Your task to perform on an android device: toggle priority inbox in the gmail app Image 0: 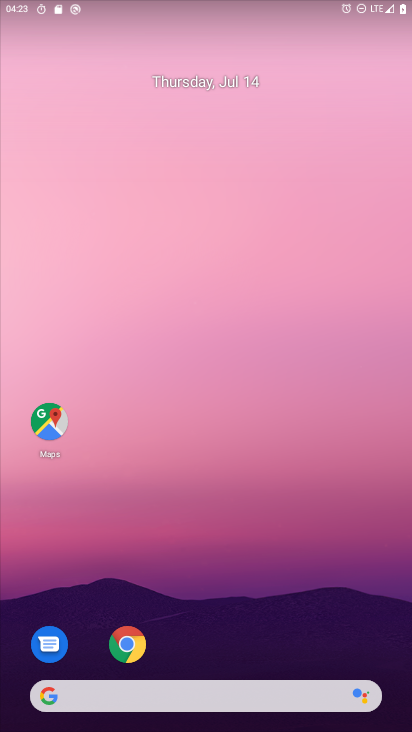
Step 0: drag from (271, 476) to (151, 0)
Your task to perform on an android device: toggle priority inbox in the gmail app Image 1: 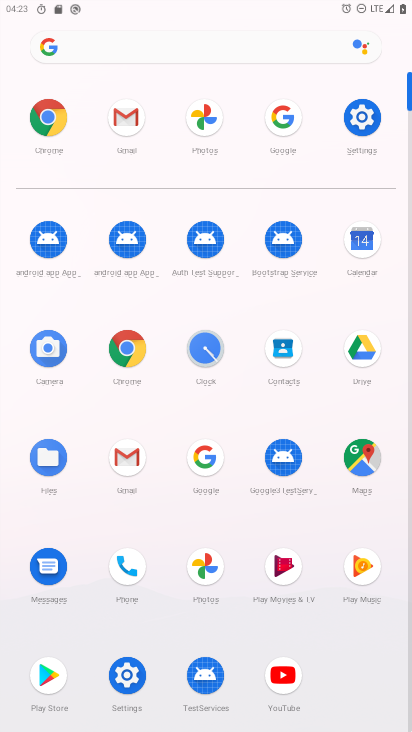
Step 1: click (119, 107)
Your task to perform on an android device: toggle priority inbox in the gmail app Image 2: 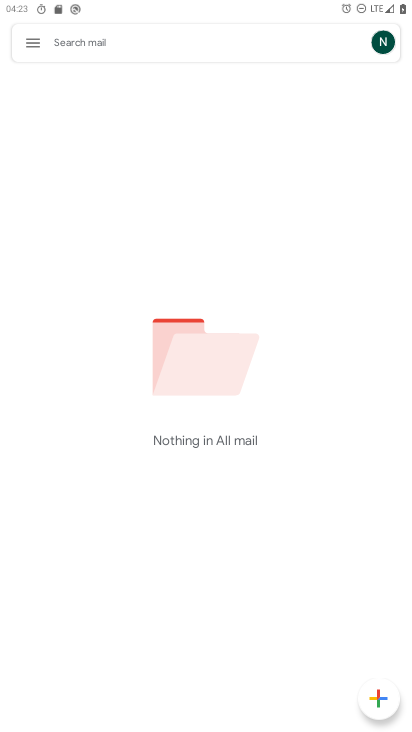
Step 2: click (31, 38)
Your task to perform on an android device: toggle priority inbox in the gmail app Image 3: 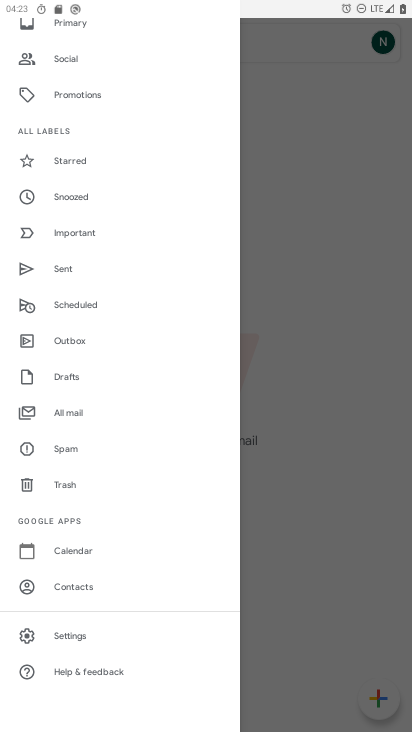
Step 3: click (67, 639)
Your task to perform on an android device: toggle priority inbox in the gmail app Image 4: 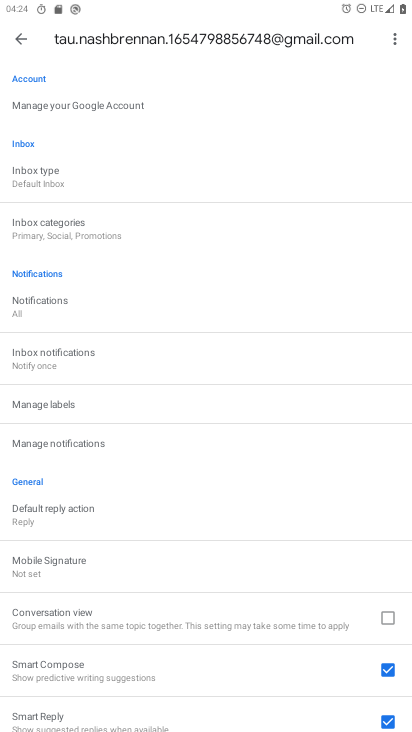
Step 4: click (41, 174)
Your task to perform on an android device: toggle priority inbox in the gmail app Image 5: 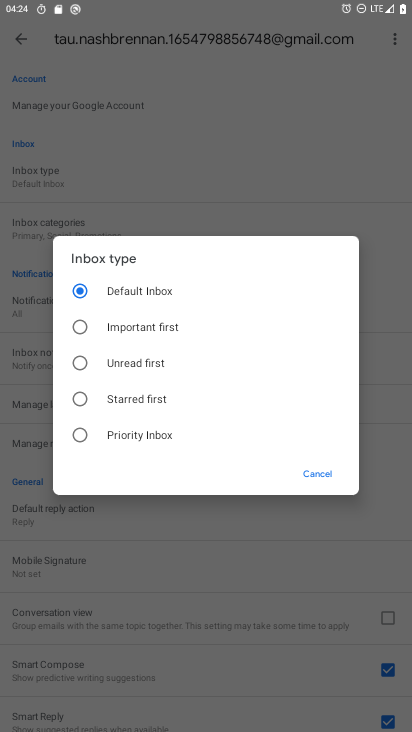
Step 5: click (165, 433)
Your task to perform on an android device: toggle priority inbox in the gmail app Image 6: 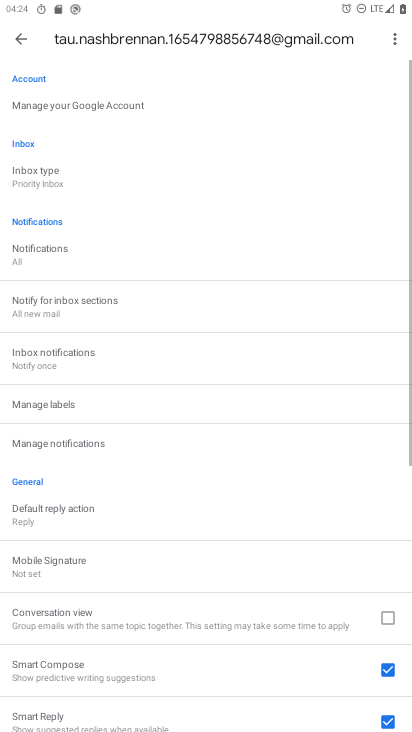
Step 6: task complete